Your task to perform on an android device: turn on airplane mode Image 0: 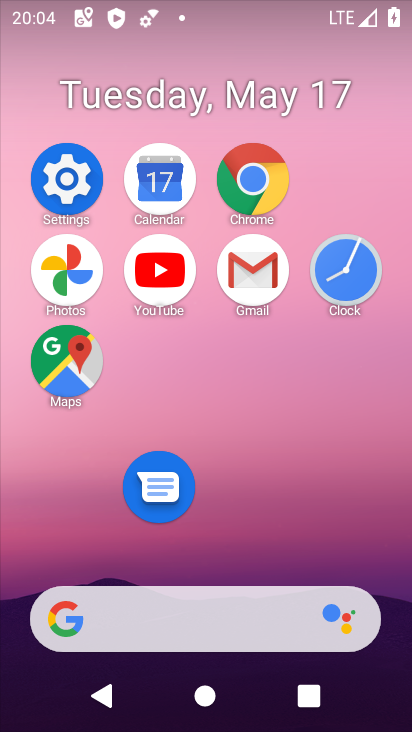
Step 0: click (64, 212)
Your task to perform on an android device: turn on airplane mode Image 1: 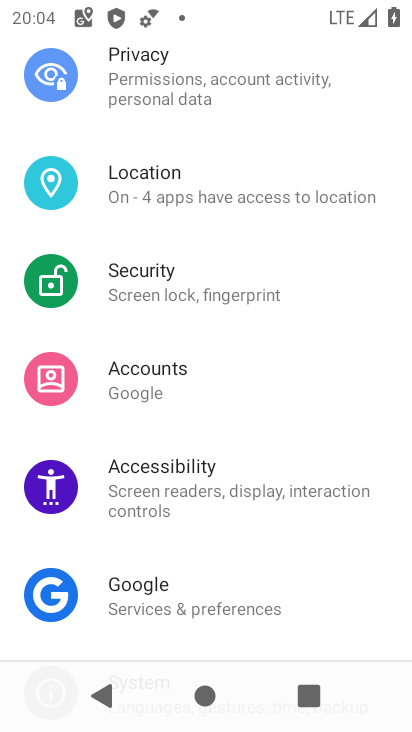
Step 1: drag from (290, 157) to (311, 566)
Your task to perform on an android device: turn on airplane mode Image 2: 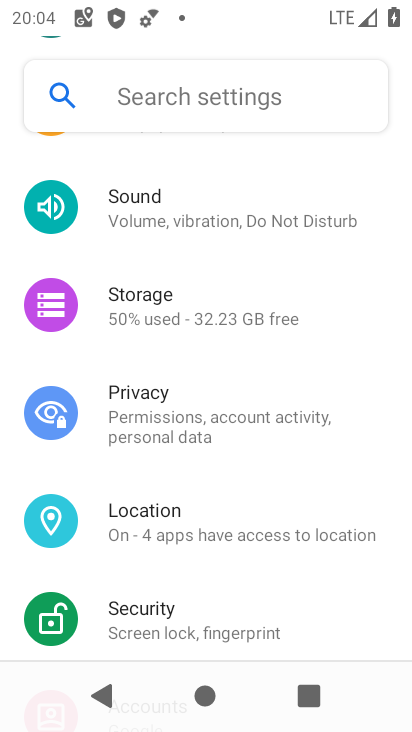
Step 2: drag from (289, 182) to (317, 579)
Your task to perform on an android device: turn on airplane mode Image 3: 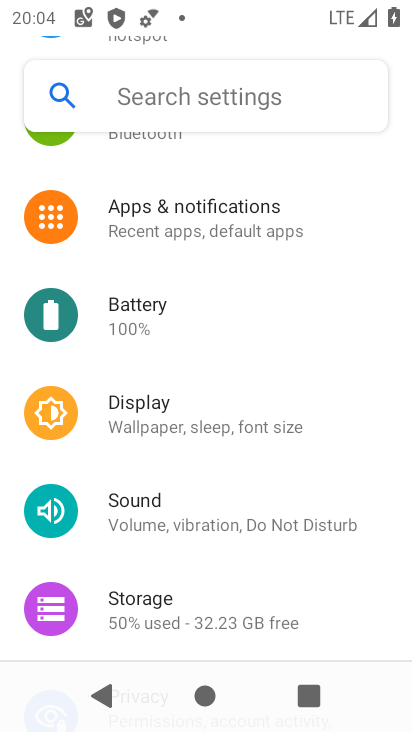
Step 3: drag from (300, 187) to (274, 559)
Your task to perform on an android device: turn on airplane mode Image 4: 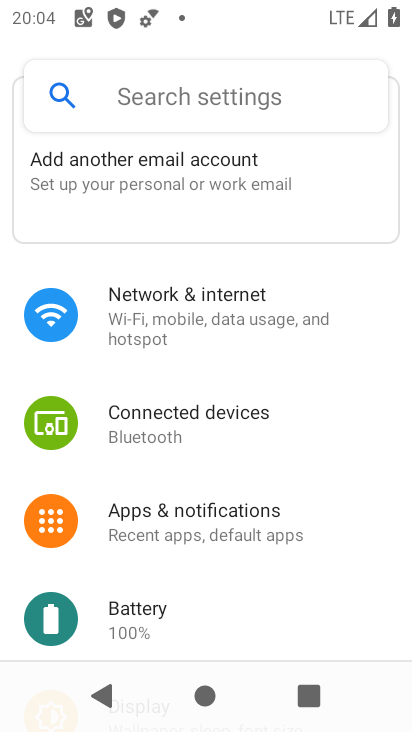
Step 4: click (219, 314)
Your task to perform on an android device: turn on airplane mode Image 5: 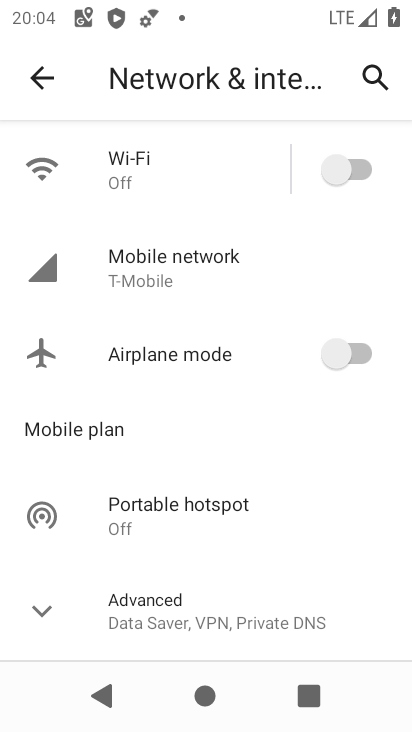
Step 5: click (351, 358)
Your task to perform on an android device: turn on airplane mode Image 6: 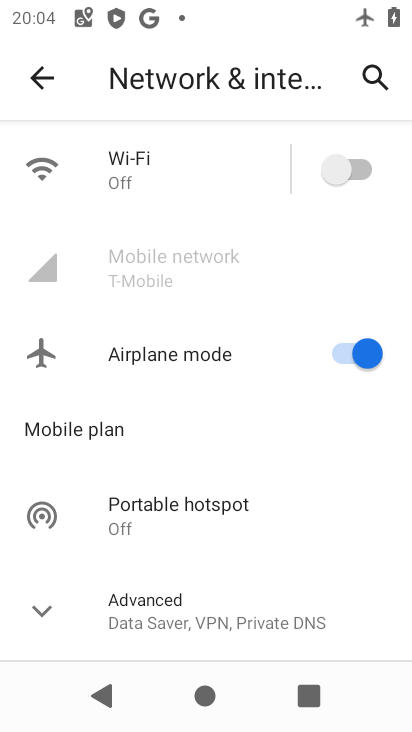
Step 6: task complete